Your task to perform on an android device: turn notification dots on Image 0: 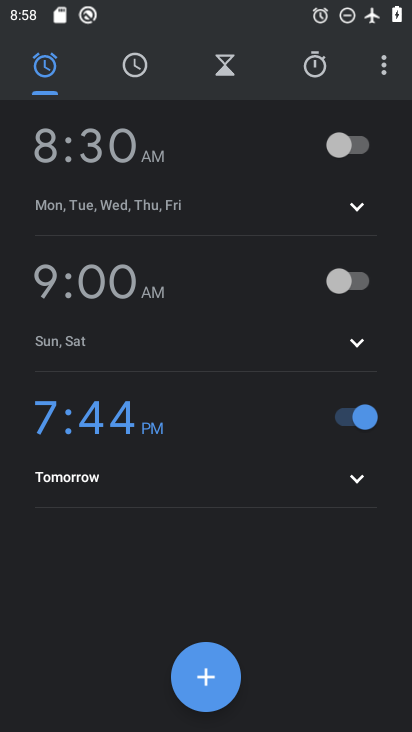
Step 0: press home button
Your task to perform on an android device: turn notification dots on Image 1: 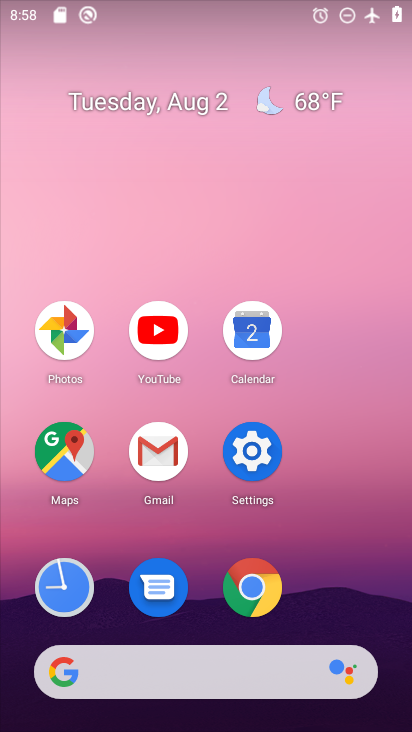
Step 1: click (255, 448)
Your task to perform on an android device: turn notification dots on Image 2: 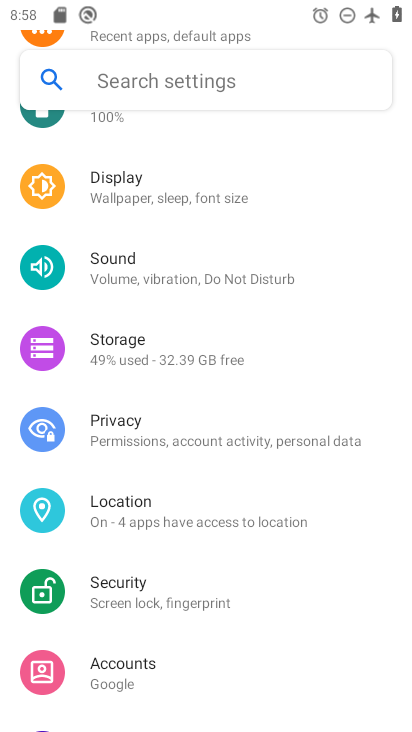
Step 2: drag from (256, 228) to (274, 659)
Your task to perform on an android device: turn notification dots on Image 3: 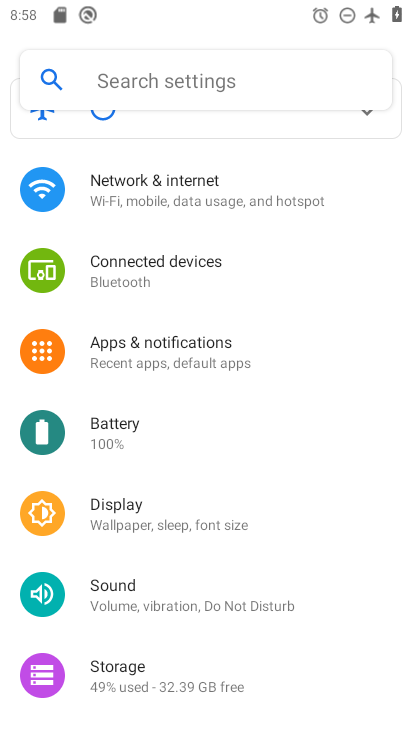
Step 3: click (174, 344)
Your task to perform on an android device: turn notification dots on Image 4: 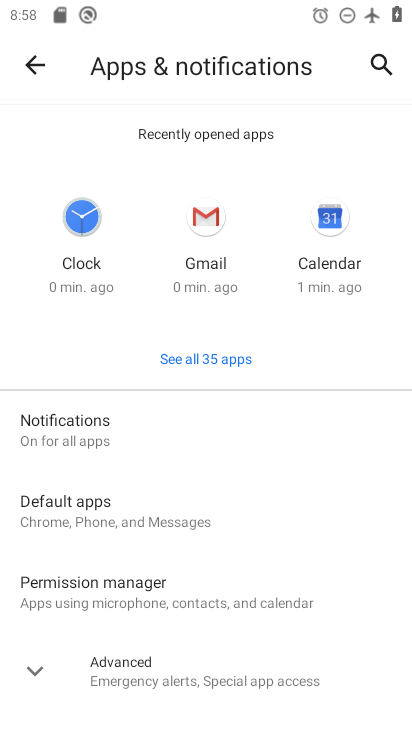
Step 4: click (70, 415)
Your task to perform on an android device: turn notification dots on Image 5: 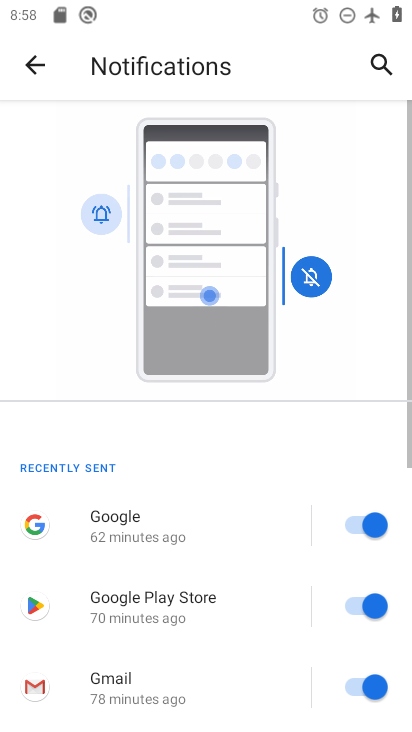
Step 5: drag from (290, 494) to (346, 48)
Your task to perform on an android device: turn notification dots on Image 6: 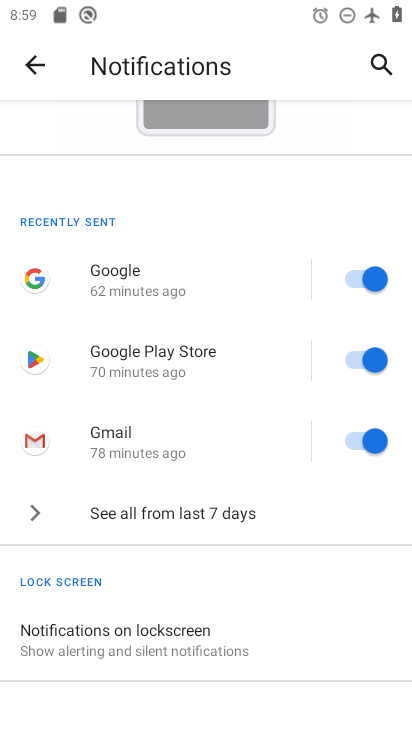
Step 6: drag from (183, 596) to (234, 250)
Your task to perform on an android device: turn notification dots on Image 7: 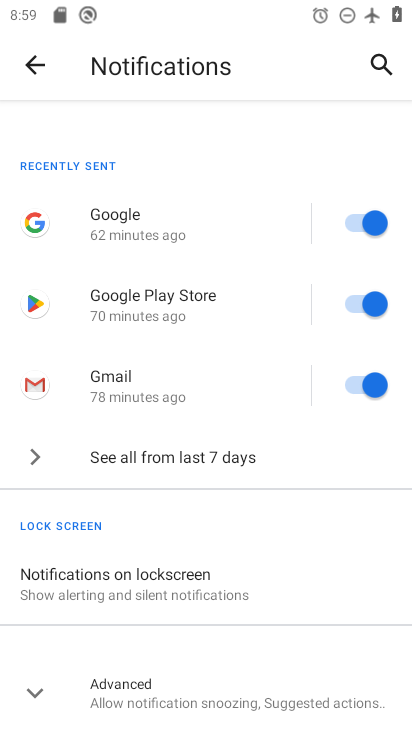
Step 7: click (33, 693)
Your task to perform on an android device: turn notification dots on Image 8: 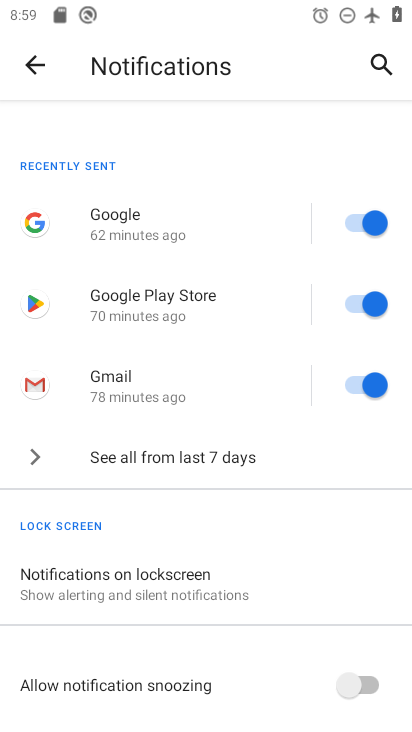
Step 8: drag from (211, 642) to (238, 392)
Your task to perform on an android device: turn notification dots on Image 9: 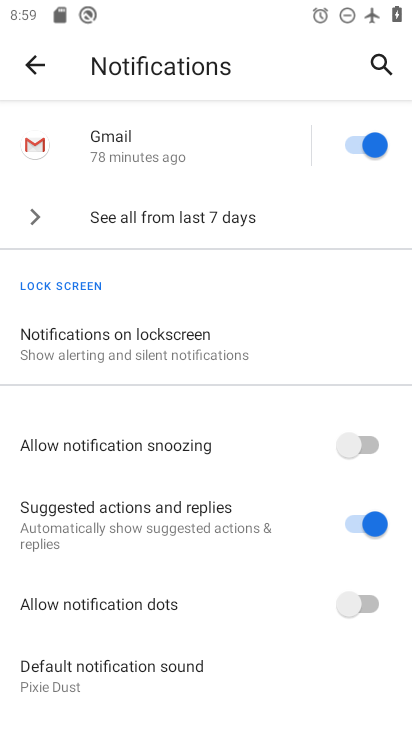
Step 9: click (345, 602)
Your task to perform on an android device: turn notification dots on Image 10: 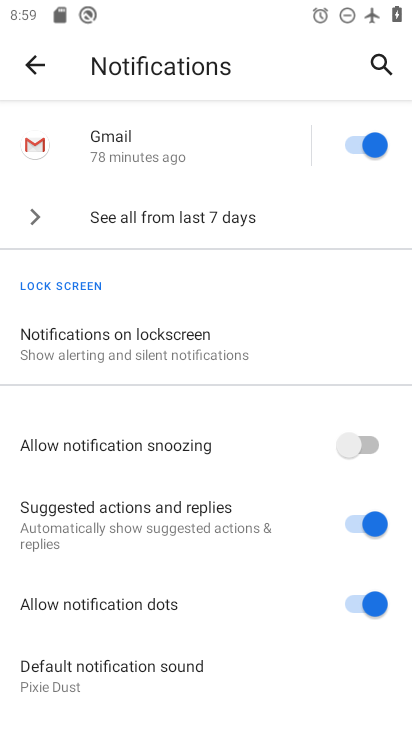
Step 10: task complete